Your task to perform on an android device: open chrome privacy settings Image 0: 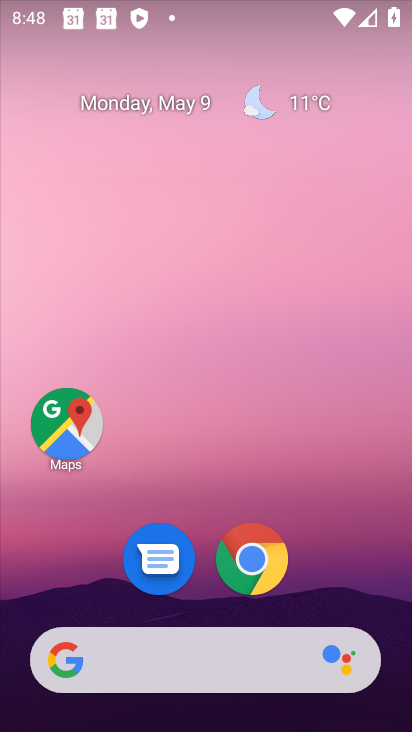
Step 0: drag from (287, 451) to (161, 12)
Your task to perform on an android device: open chrome privacy settings Image 1: 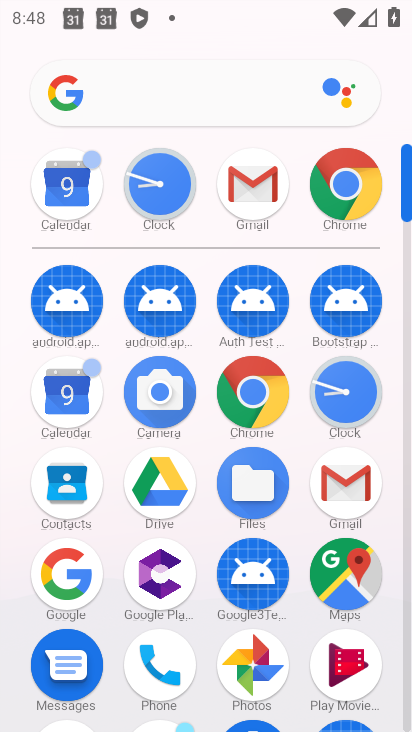
Step 1: drag from (299, 421) to (328, 545)
Your task to perform on an android device: open chrome privacy settings Image 2: 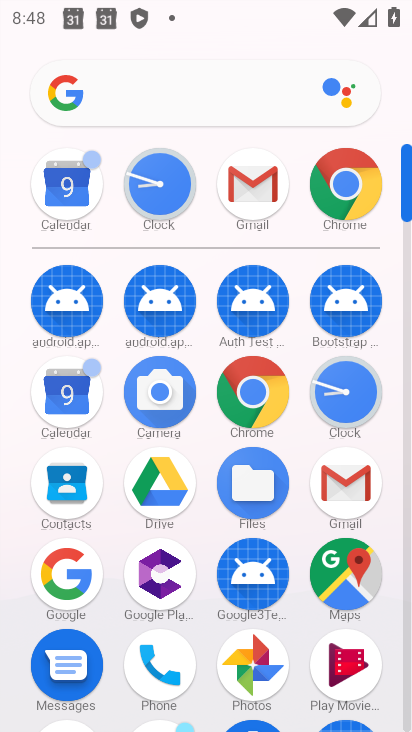
Step 2: drag from (315, 525) to (274, 244)
Your task to perform on an android device: open chrome privacy settings Image 3: 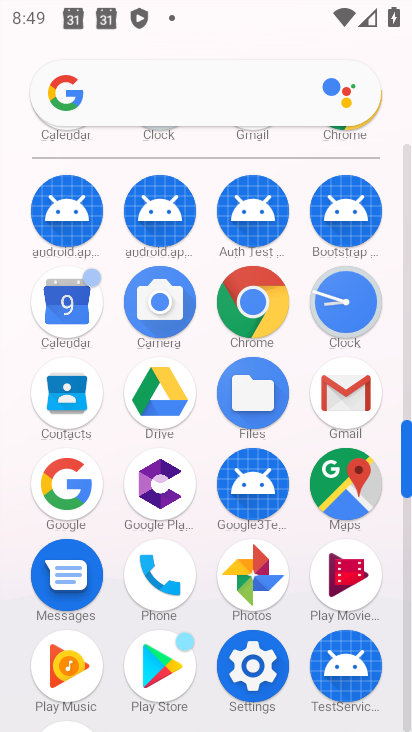
Step 3: click (248, 675)
Your task to perform on an android device: open chrome privacy settings Image 4: 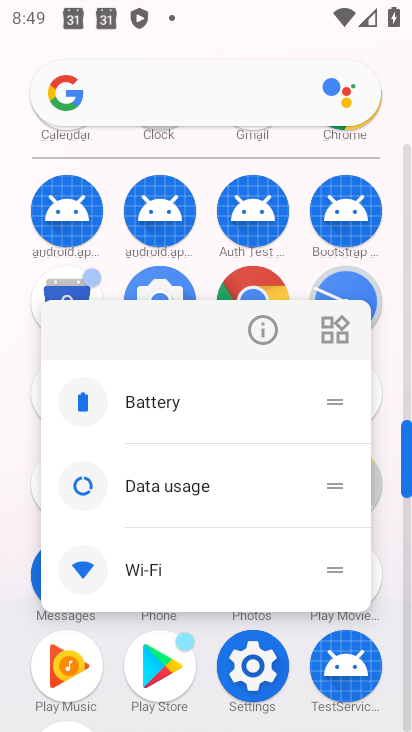
Step 4: click (377, 325)
Your task to perform on an android device: open chrome privacy settings Image 5: 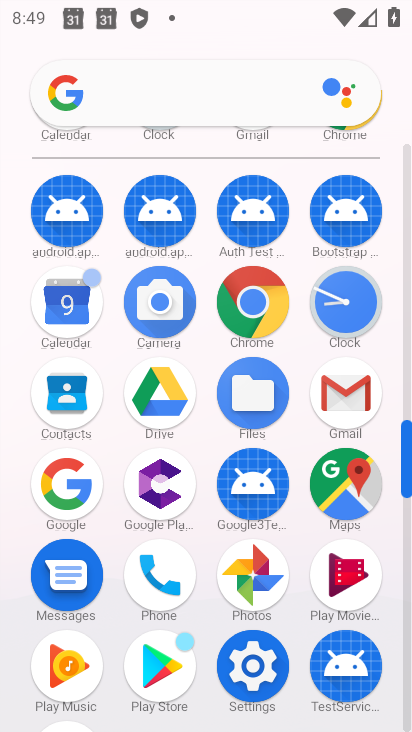
Step 5: click (389, 350)
Your task to perform on an android device: open chrome privacy settings Image 6: 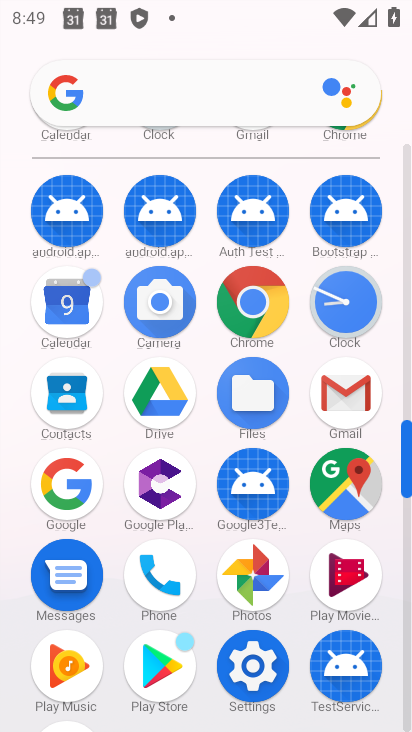
Step 6: click (389, 350)
Your task to perform on an android device: open chrome privacy settings Image 7: 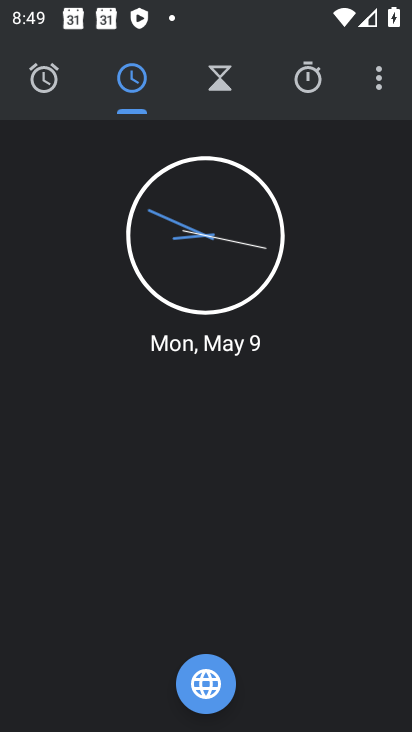
Step 7: press home button
Your task to perform on an android device: open chrome privacy settings Image 8: 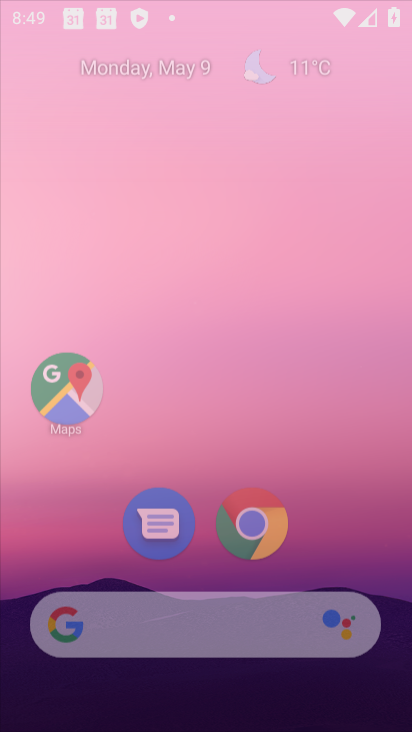
Step 8: press home button
Your task to perform on an android device: open chrome privacy settings Image 9: 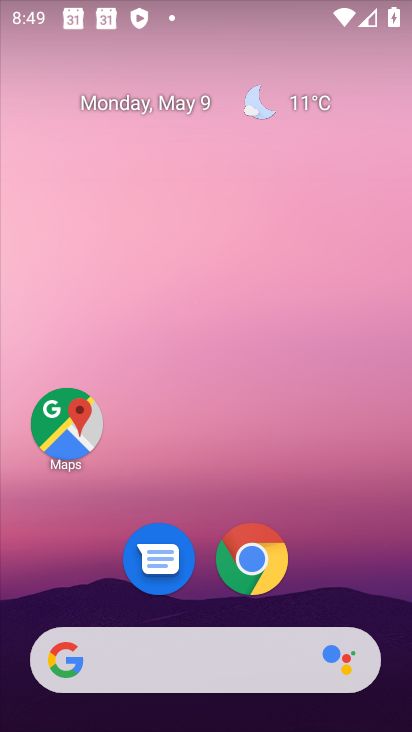
Step 9: click (246, 565)
Your task to perform on an android device: open chrome privacy settings Image 10: 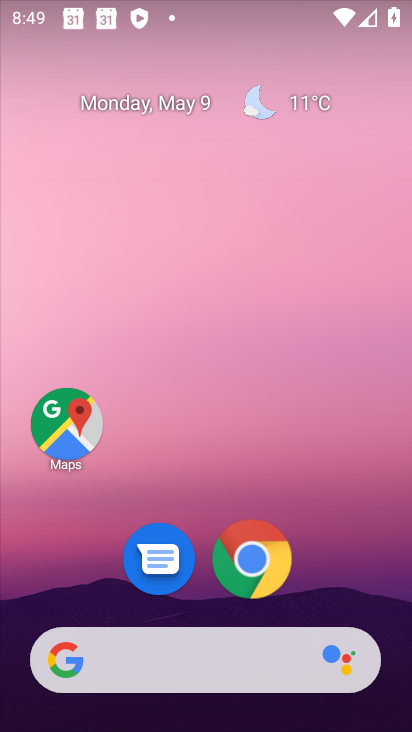
Step 10: click (246, 565)
Your task to perform on an android device: open chrome privacy settings Image 11: 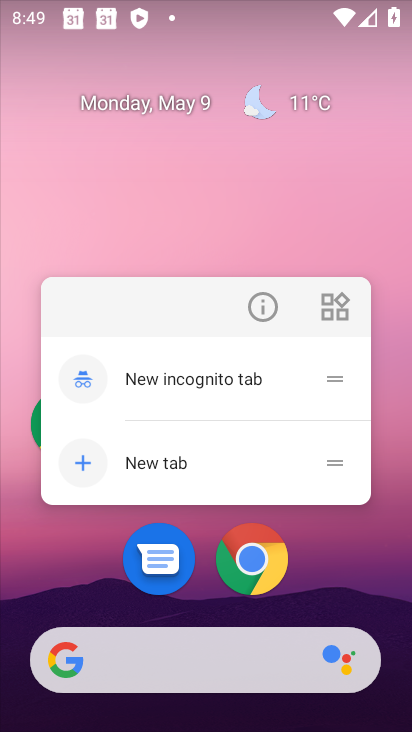
Step 11: click (246, 565)
Your task to perform on an android device: open chrome privacy settings Image 12: 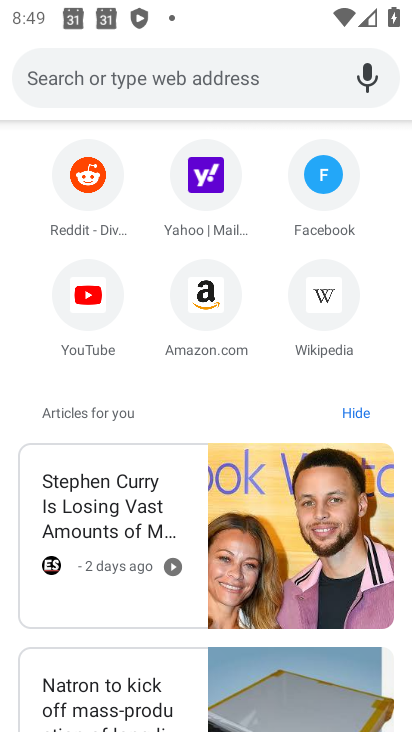
Step 12: drag from (250, 146) to (321, 487)
Your task to perform on an android device: open chrome privacy settings Image 13: 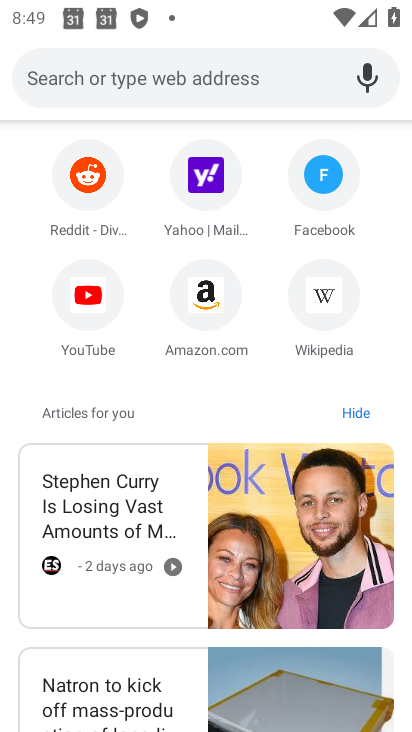
Step 13: drag from (236, 225) to (281, 511)
Your task to perform on an android device: open chrome privacy settings Image 14: 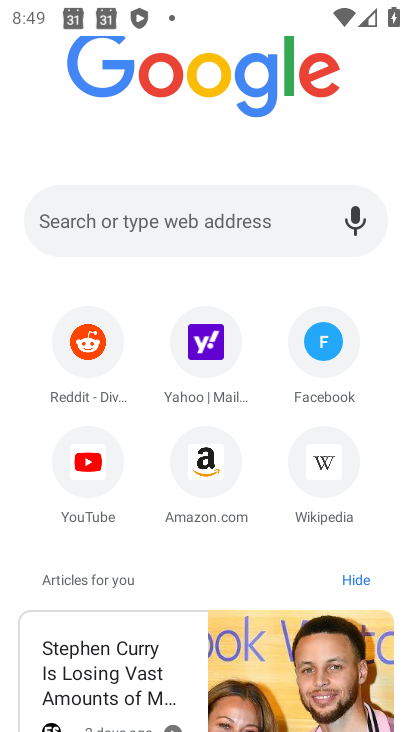
Step 14: drag from (250, 163) to (310, 662)
Your task to perform on an android device: open chrome privacy settings Image 15: 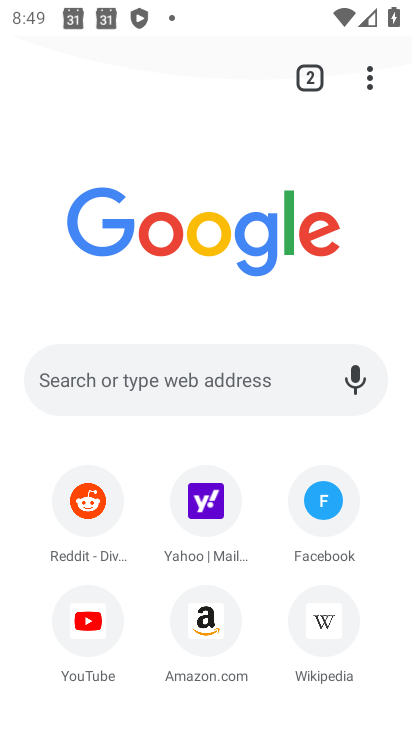
Step 15: drag from (270, 112) to (325, 664)
Your task to perform on an android device: open chrome privacy settings Image 16: 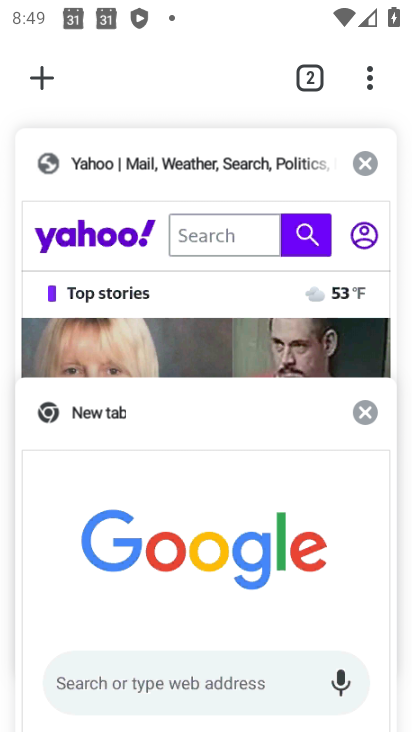
Step 16: click (367, 73)
Your task to perform on an android device: open chrome privacy settings Image 17: 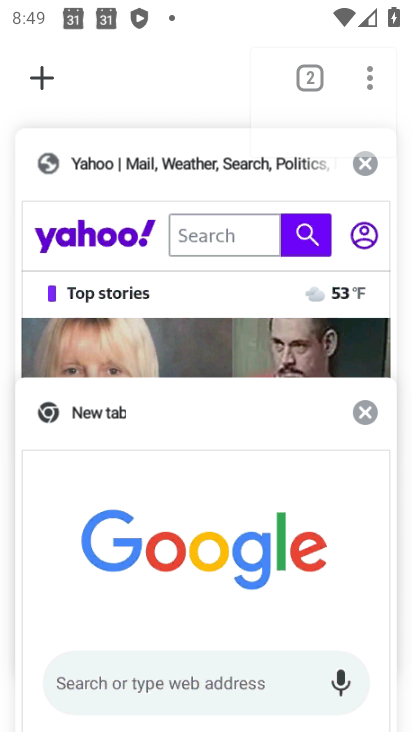
Step 17: click (367, 73)
Your task to perform on an android device: open chrome privacy settings Image 18: 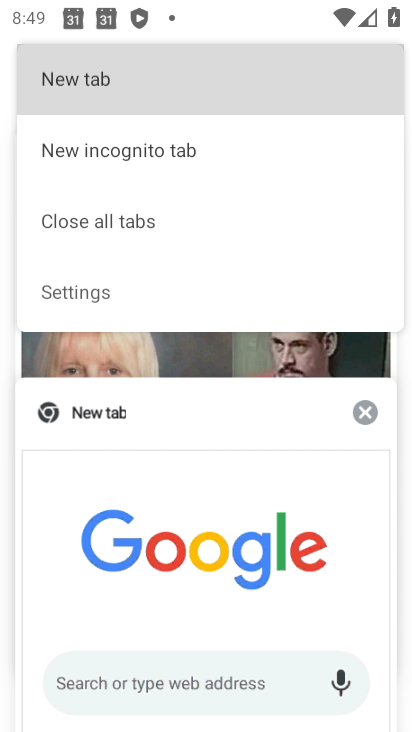
Step 18: click (367, 73)
Your task to perform on an android device: open chrome privacy settings Image 19: 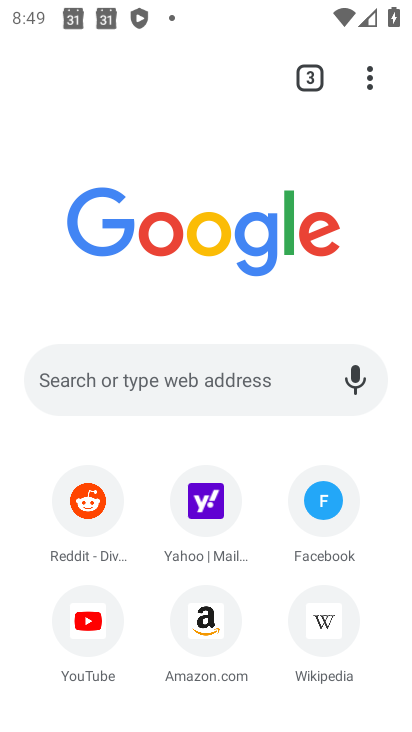
Step 19: click (372, 77)
Your task to perform on an android device: open chrome privacy settings Image 20: 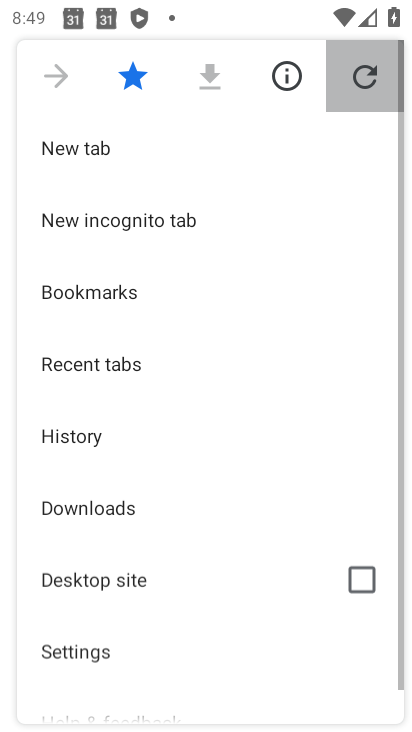
Step 20: drag from (372, 78) to (238, 305)
Your task to perform on an android device: open chrome privacy settings Image 21: 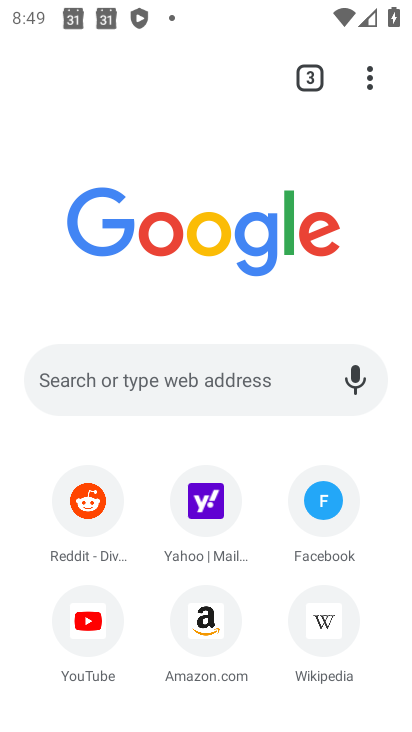
Step 21: click (366, 82)
Your task to perform on an android device: open chrome privacy settings Image 22: 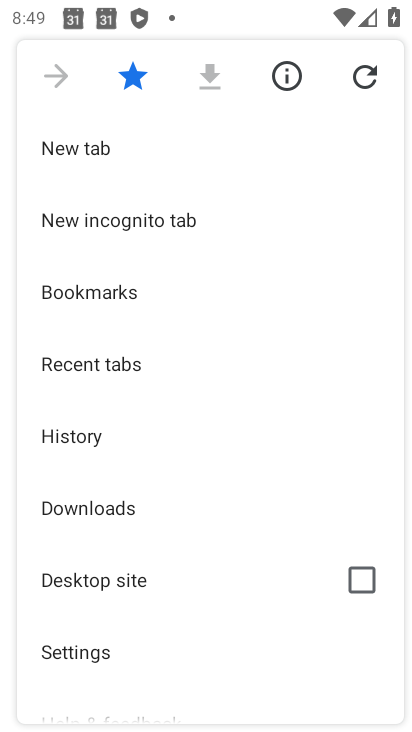
Step 22: drag from (105, 630) to (101, 63)
Your task to perform on an android device: open chrome privacy settings Image 23: 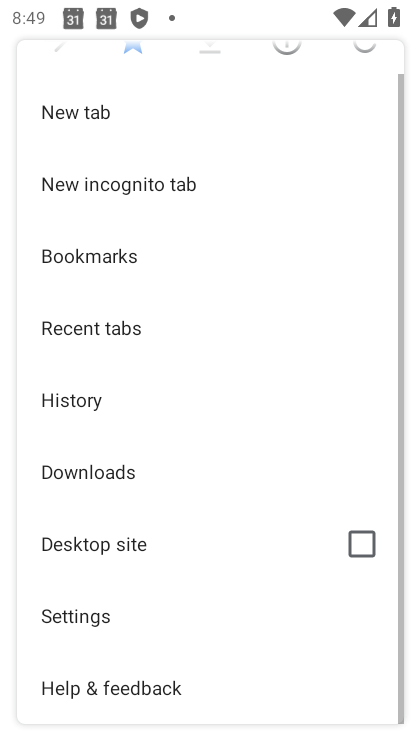
Step 23: click (72, 614)
Your task to perform on an android device: open chrome privacy settings Image 24: 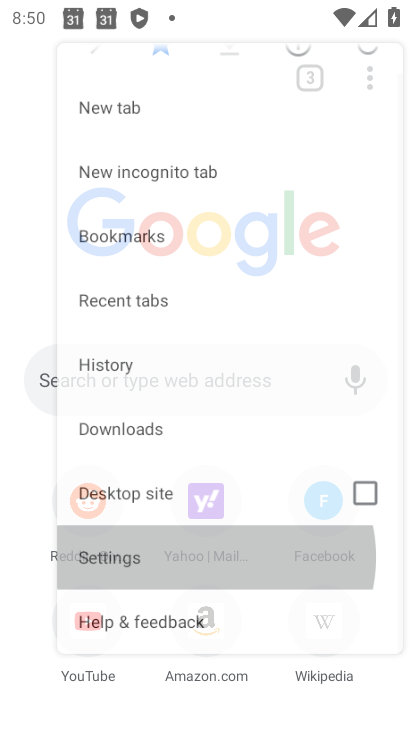
Step 24: click (72, 614)
Your task to perform on an android device: open chrome privacy settings Image 25: 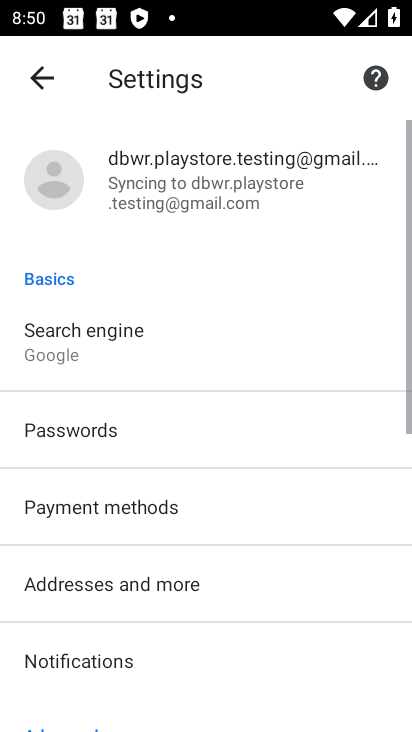
Step 25: click (72, 614)
Your task to perform on an android device: open chrome privacy settings Image 26: 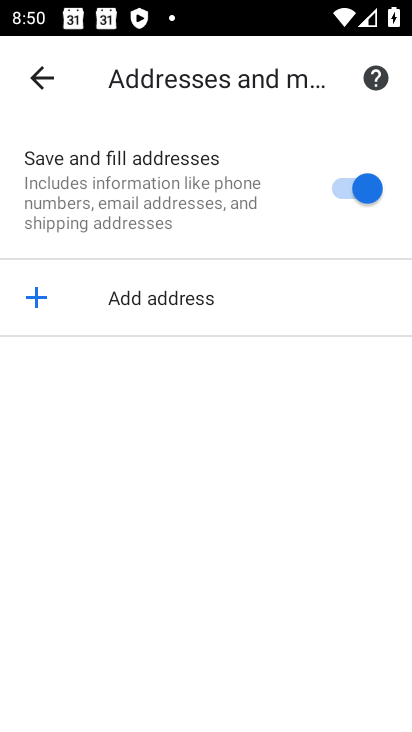
Step 26: click (47, 73)
Your task to perform on an android device: open chrome privacy settings Image 27: 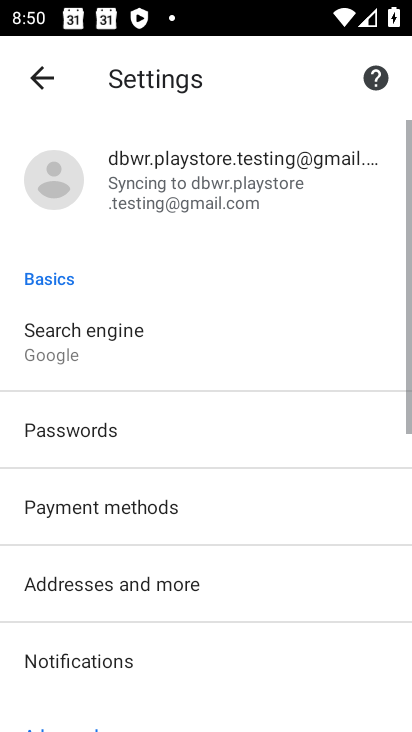
Step 27: drag from (178, 546) to (239, 32)
Your task to perform on an android device: open chrome privacy settings Image 28: 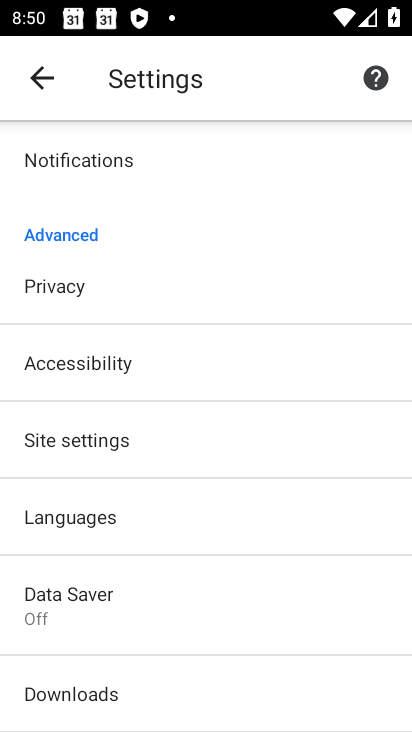
Step 28: drag from (102, 543) to (40, 76)
Your task to perform on an android device: open chrome privacy settings Image 29: 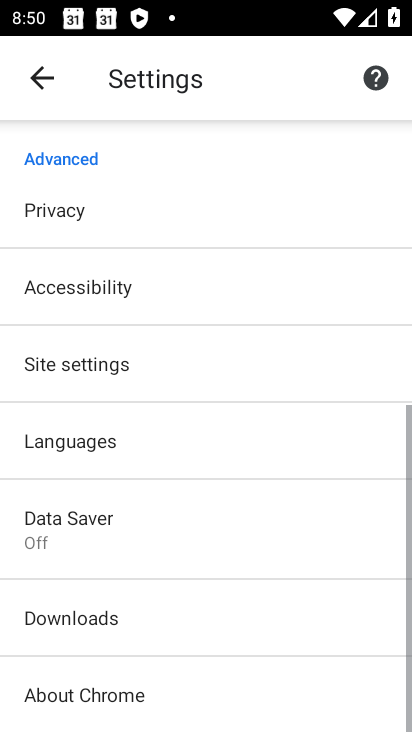
Step 29: click (64, 210)
Your task to perform on an android device: open chrome privacy settings Image 30: 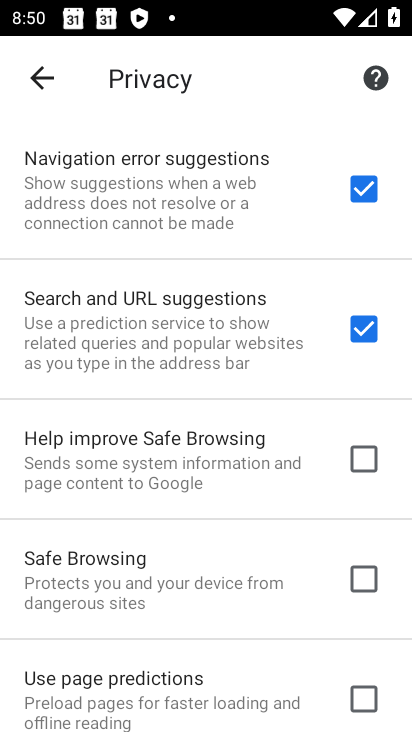
Step 30: task complete